Your task to perform on an android device: uninstall "Yahoo Mail" Image 0: 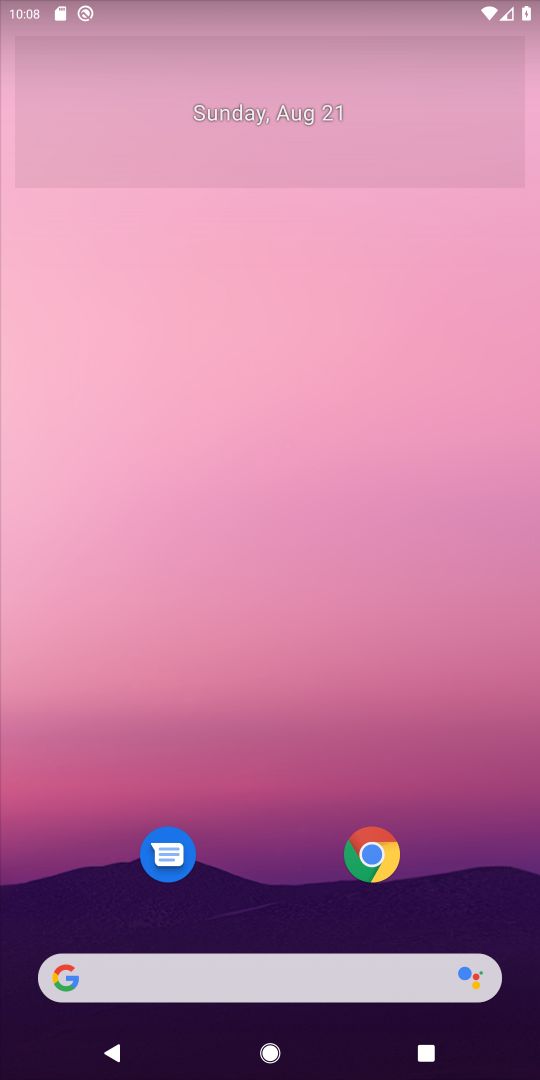
Step 0: drag from (229, 425) to (334, 0)
Your task to perform on an android device: uninstall "Yahoo Mail" Image 1: 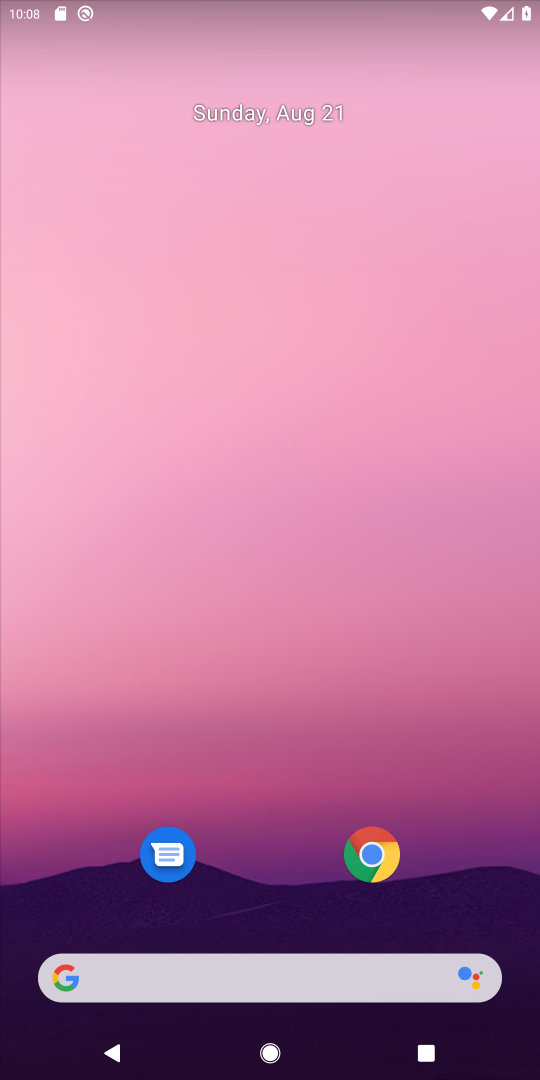
Step 1: drag from (284, 937) to (283, 157)
Your task to perform on an android device: uninstall "Yahoo Mail" Image 2: 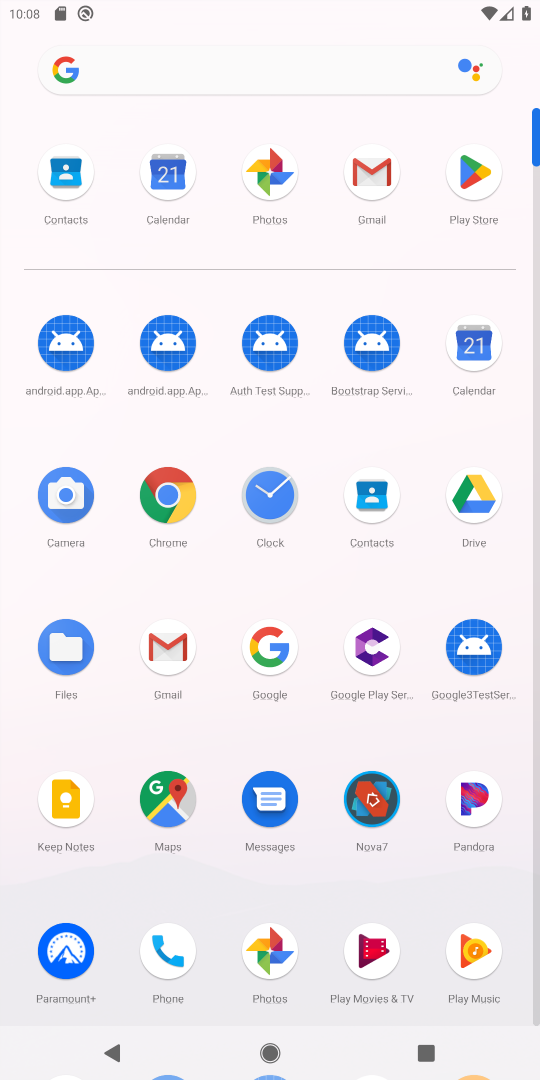
Step 2: click (472, 176)
Your task to perform on an android device: uninstall "Yahoo Mail" Image 3: 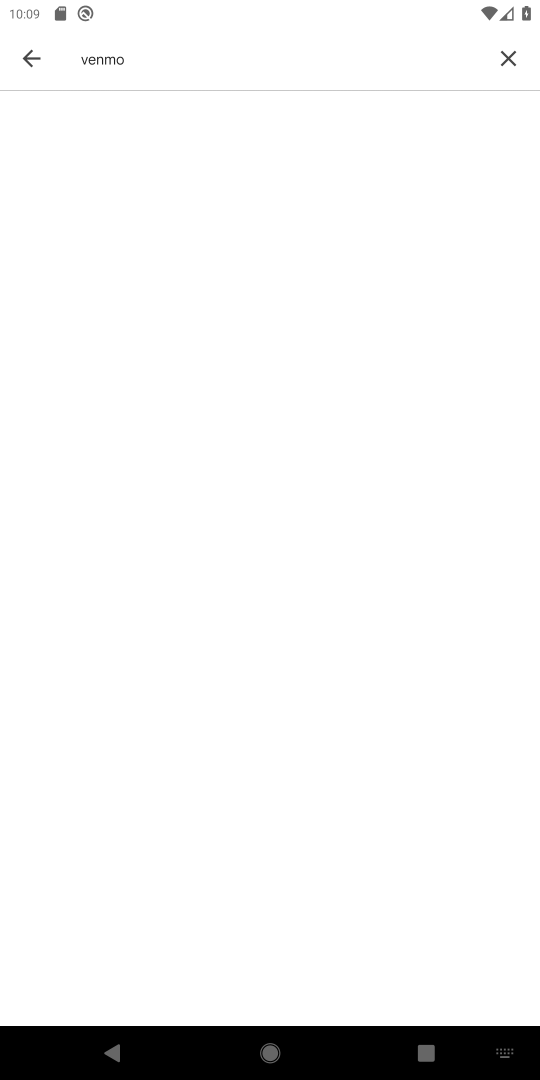
Step 3: click (517, 70)
Your task to perform on an android device: uninstall "Yahoo Mail" Image 4: 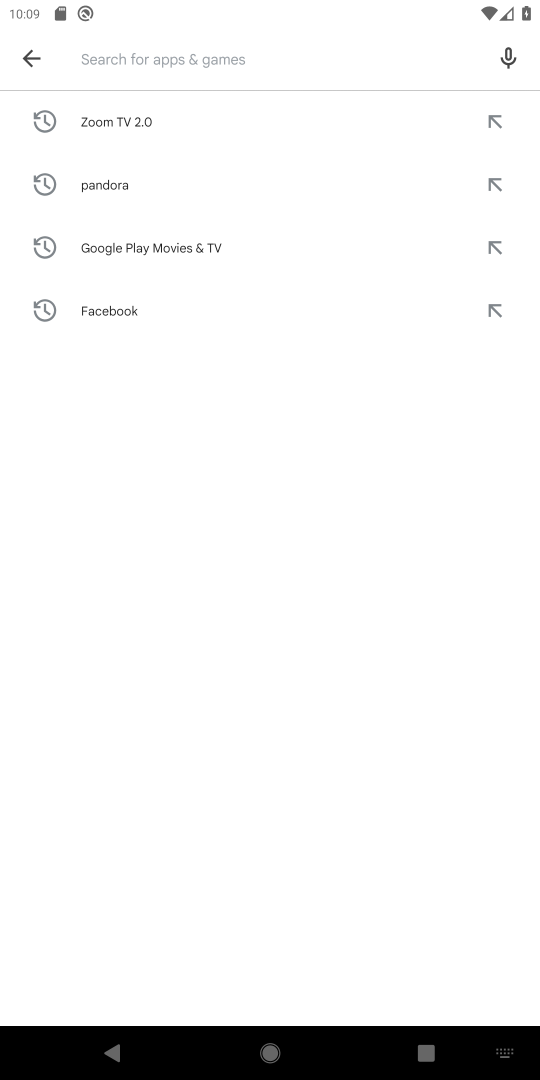
Step 4: type "yahoo"
Your task to perform on an android device: uninstall "Yahoo Mail" Image 5: 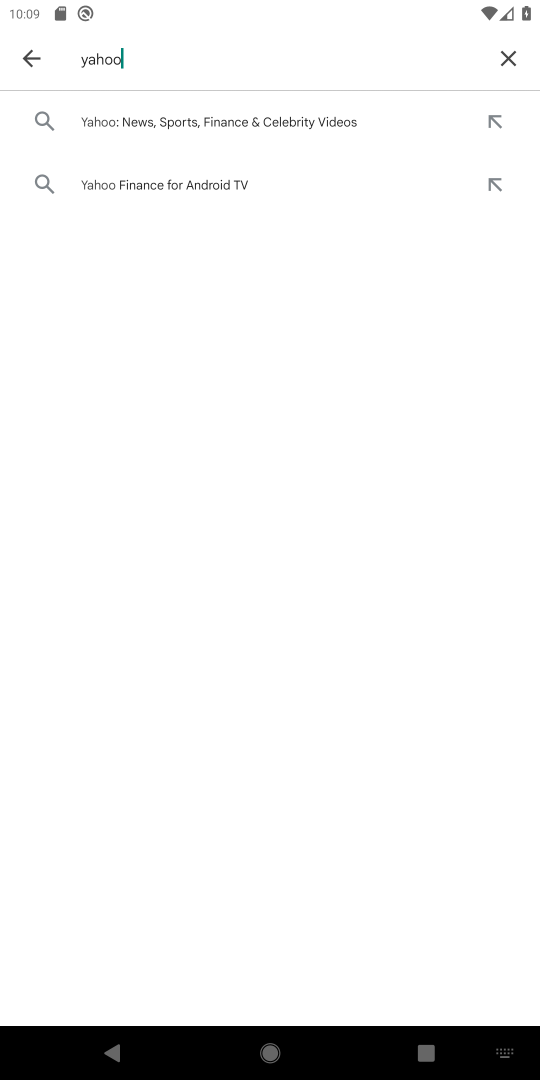
Step 5: click (271, 102)
Your task to perform on an android device: uninstall "Yahoo Mail" Image 6: 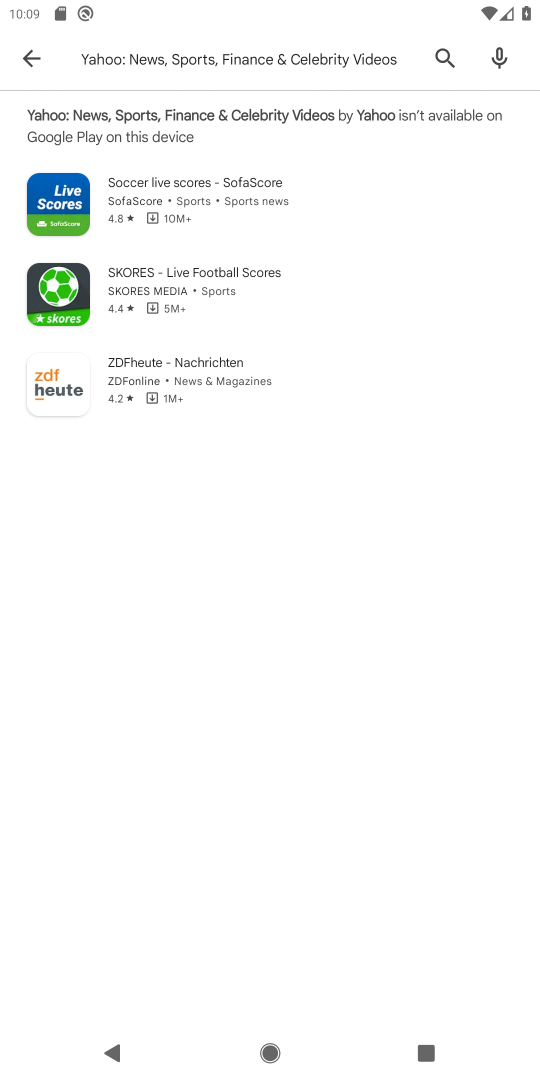
Step 6: task complete